Your task to perform on an android device: allow notifications from all sites in the chrome app Image 0: 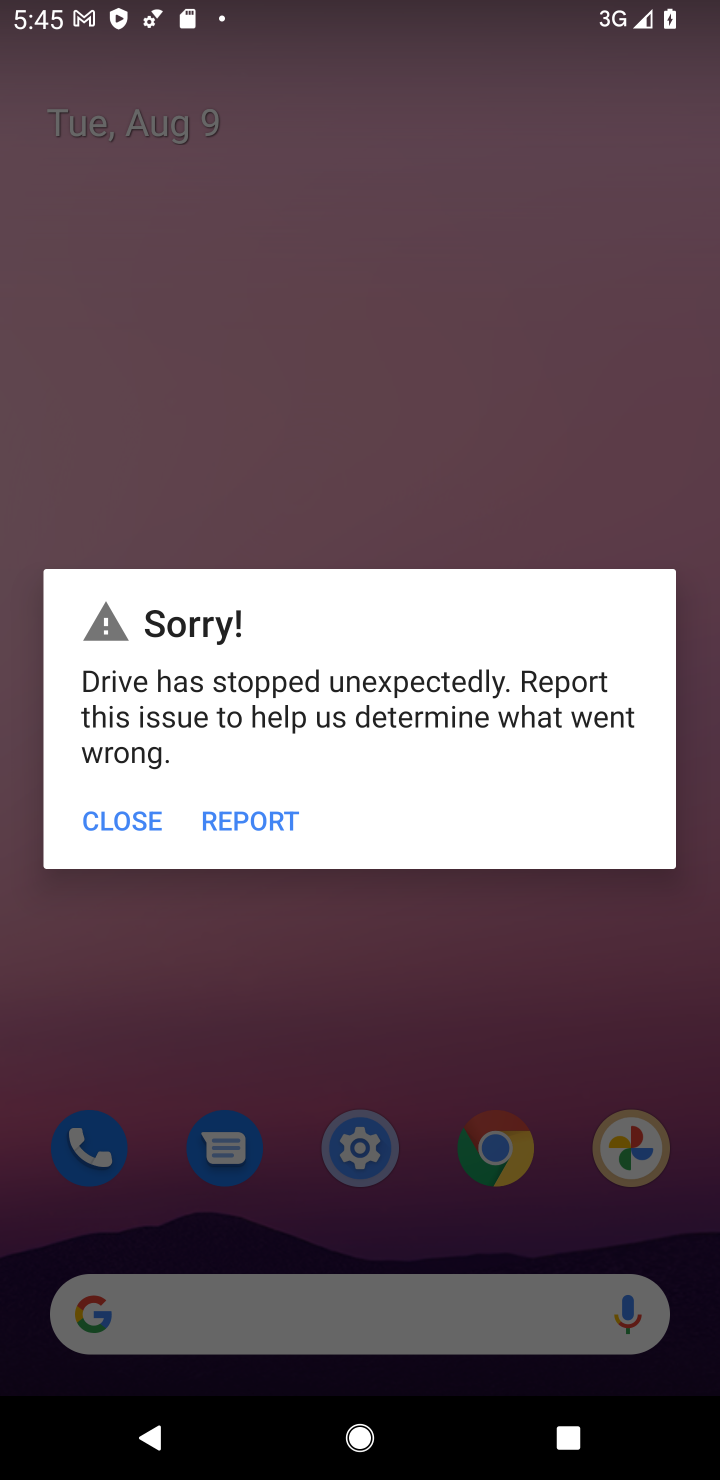
Step 0: click (99, 815)
Your task to perform on an android device: allow notifications from all sites in the chrome app Image 1: 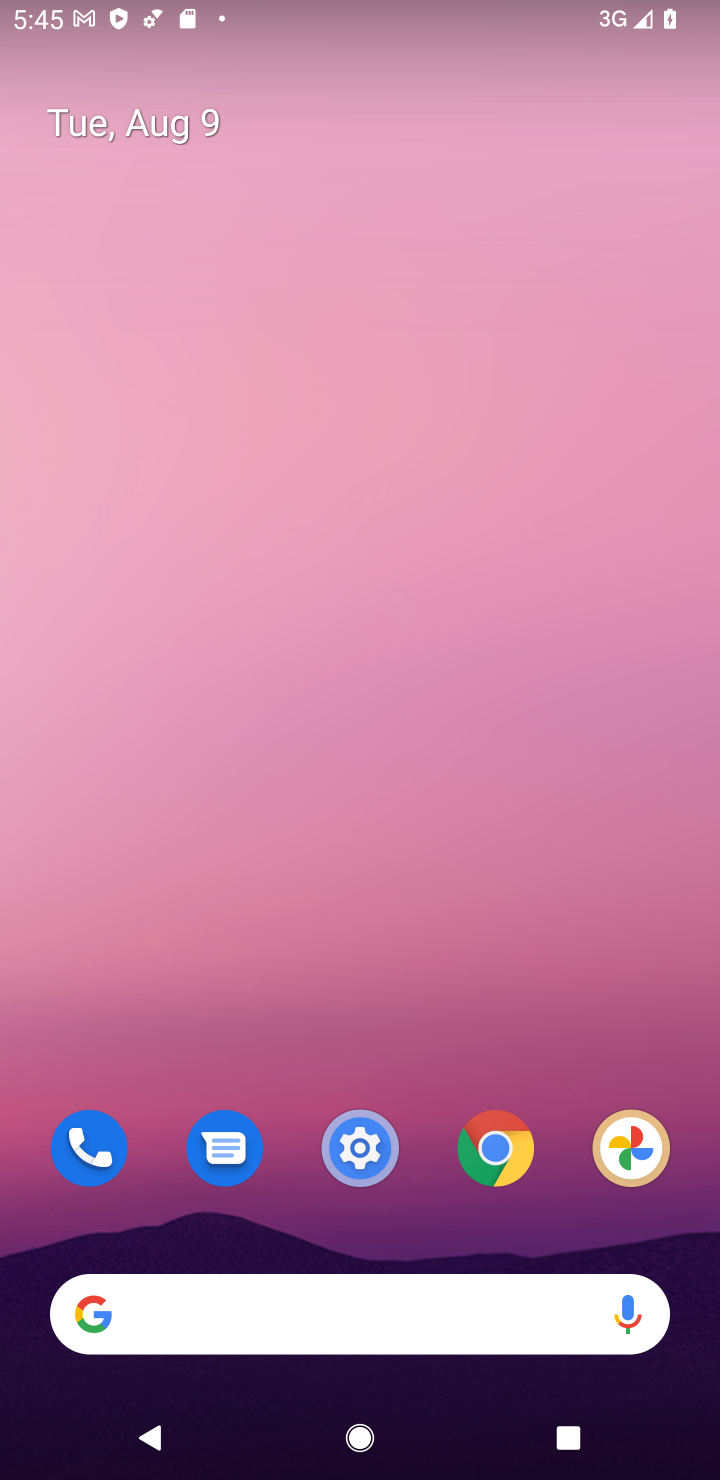
Step 1: click (502, 1138)
Your task to perform on an android device: allow notifications from all sites in the chrome app Image 2: 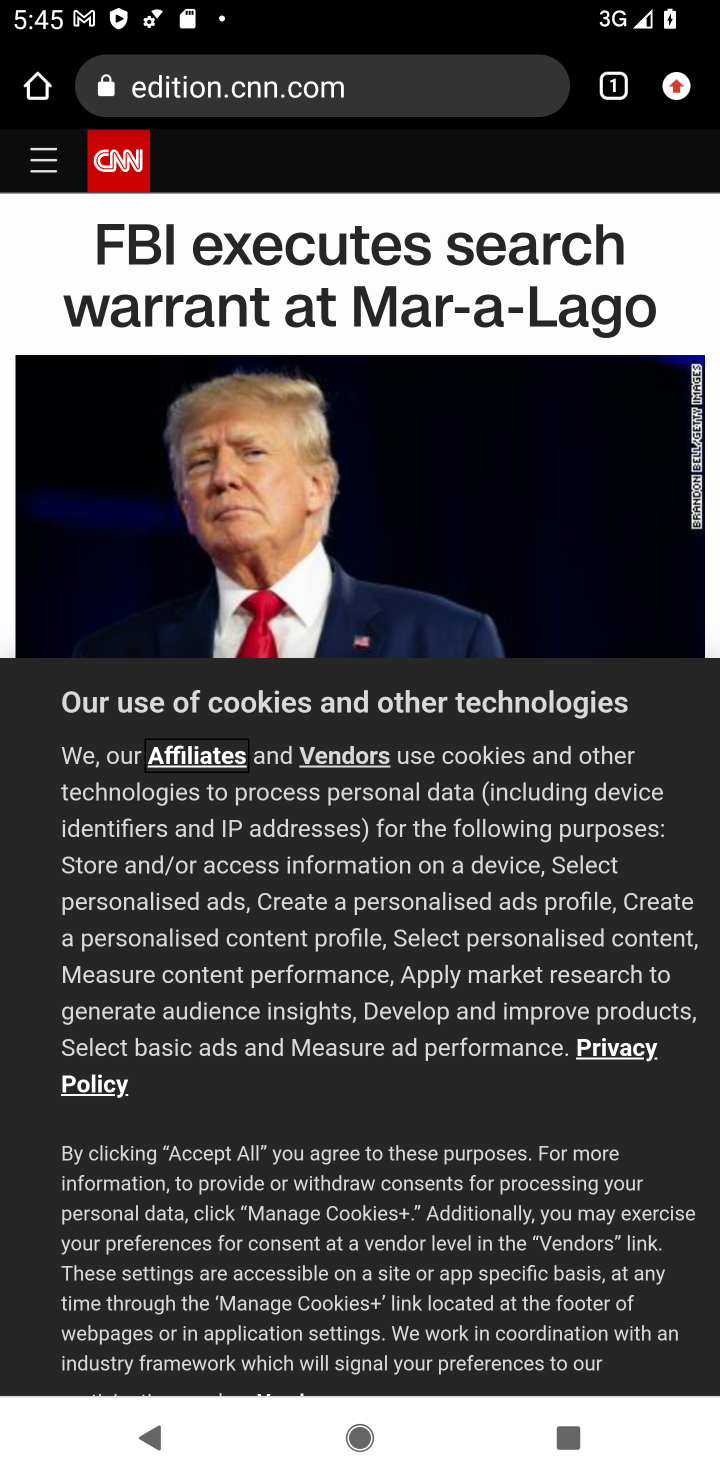
Step 2: click (665, 85)
Your task to perform on an android device: allow notifications from all sites in the chrome app Image 3: 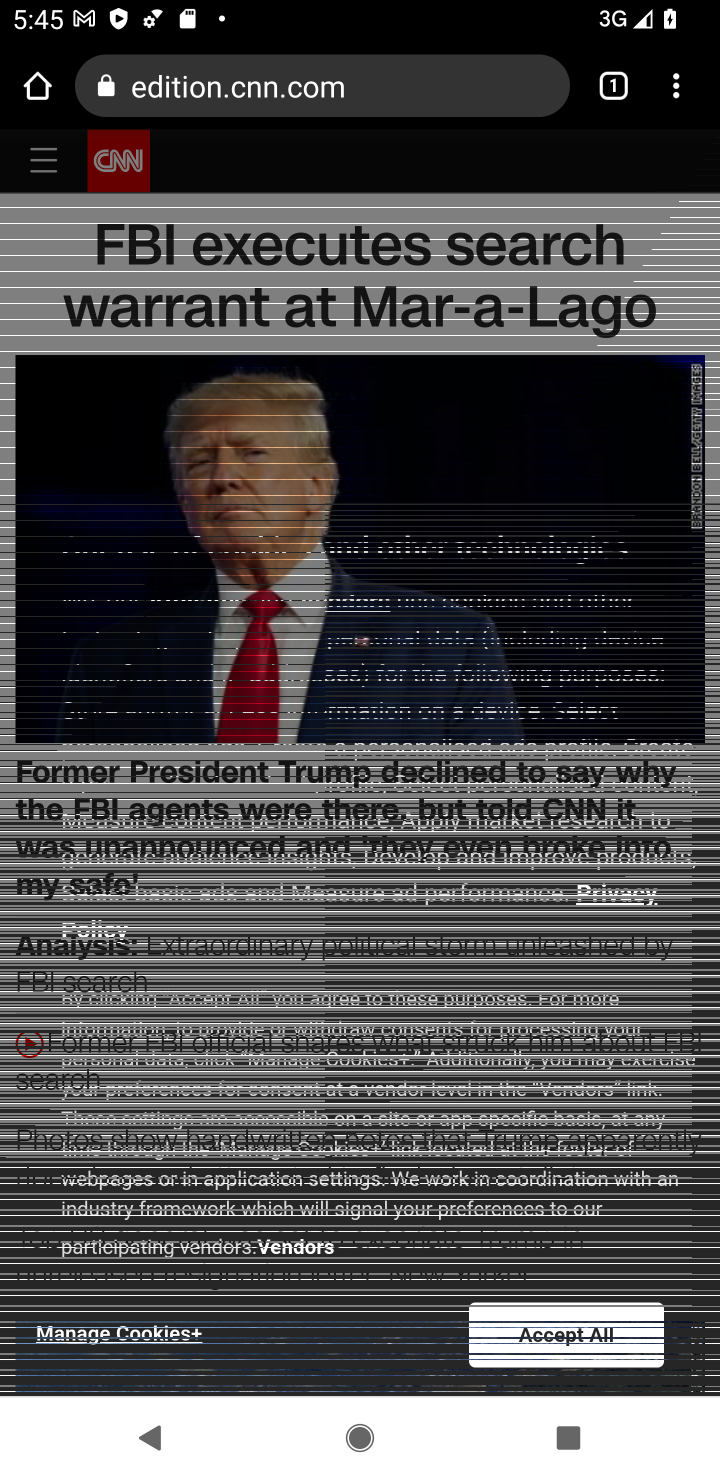
Step 3: click (678, 80)
Your task to perform on an android device: allow notifications from all sites in the chrome app Image 4: 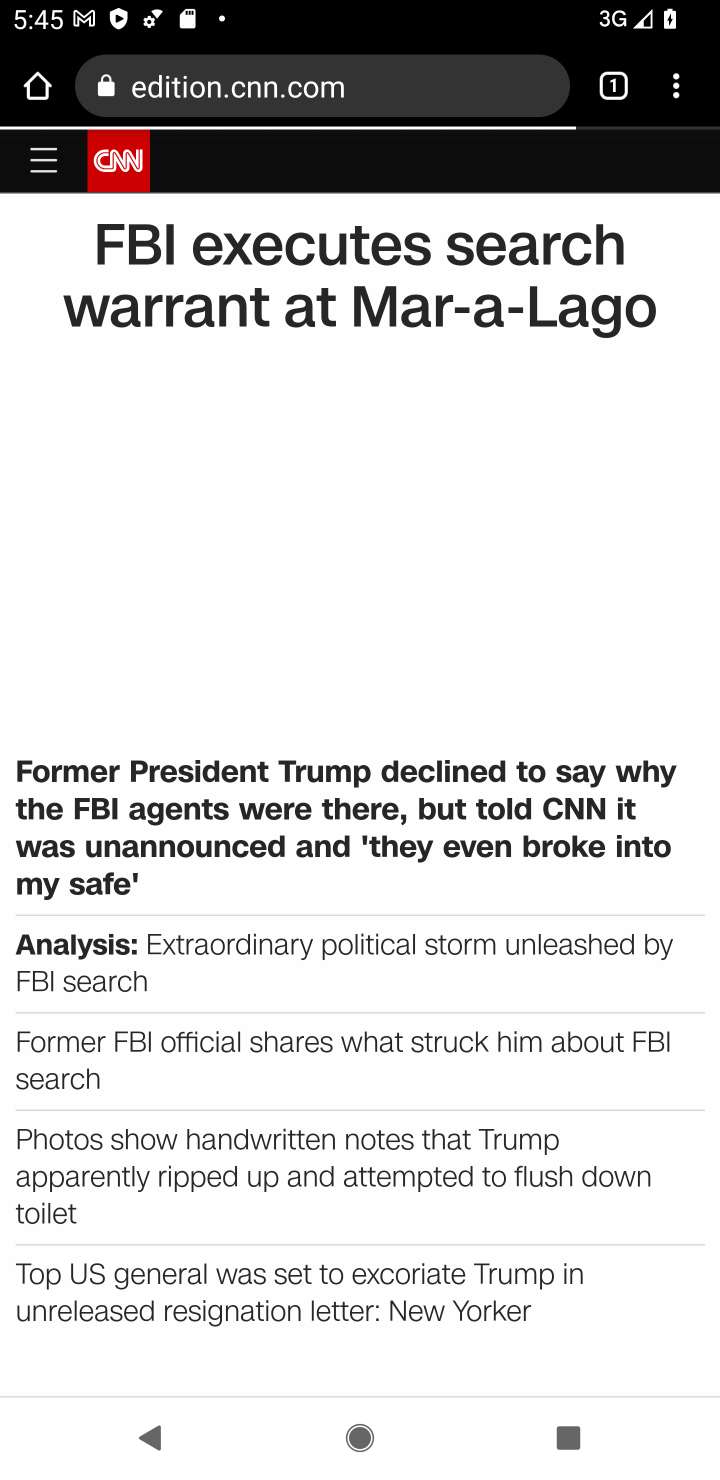
Step 4: click (646, 104)
Your task to perform on an android device: allow notifications from all sites in the chrome app Image 5: 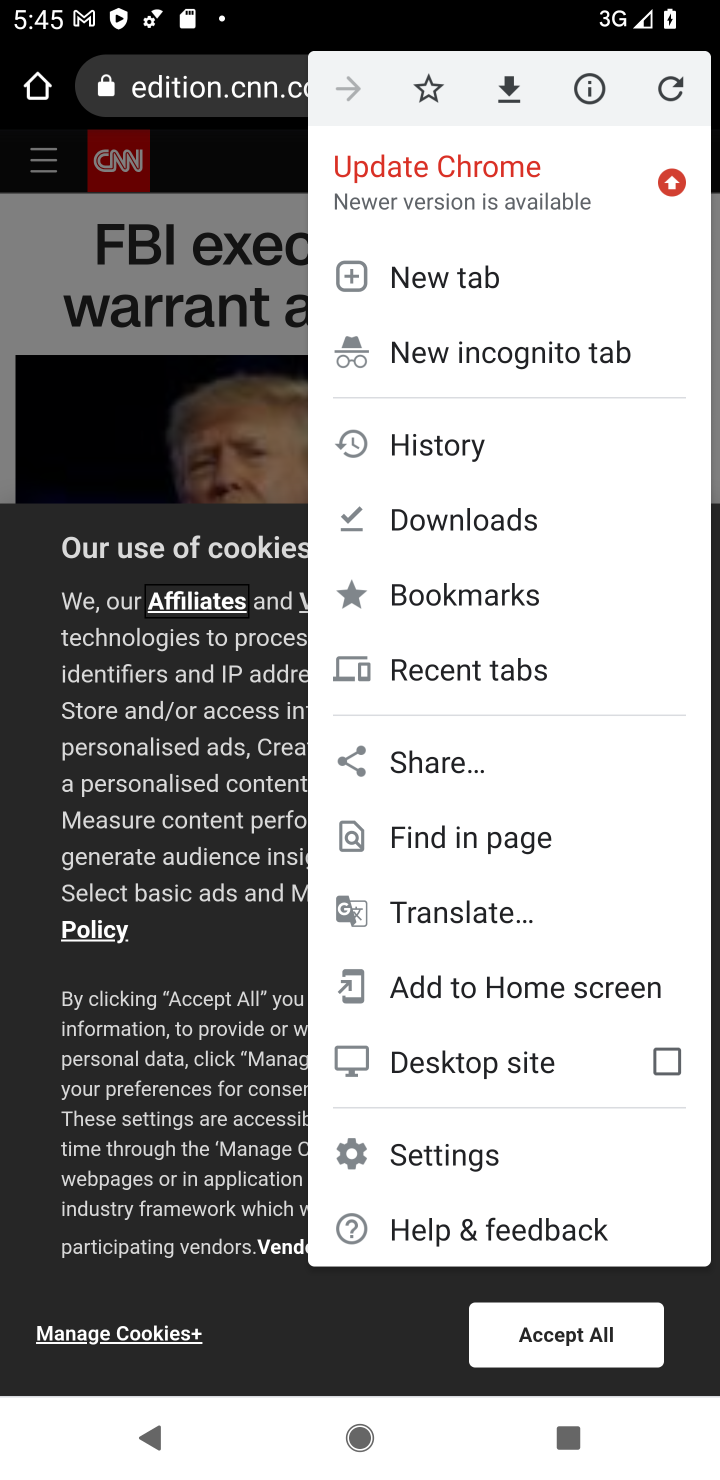
Step 5: click (461, 1159)
Your task to perform on an android device: allow notifications from all sites in the chrome app Image 6: 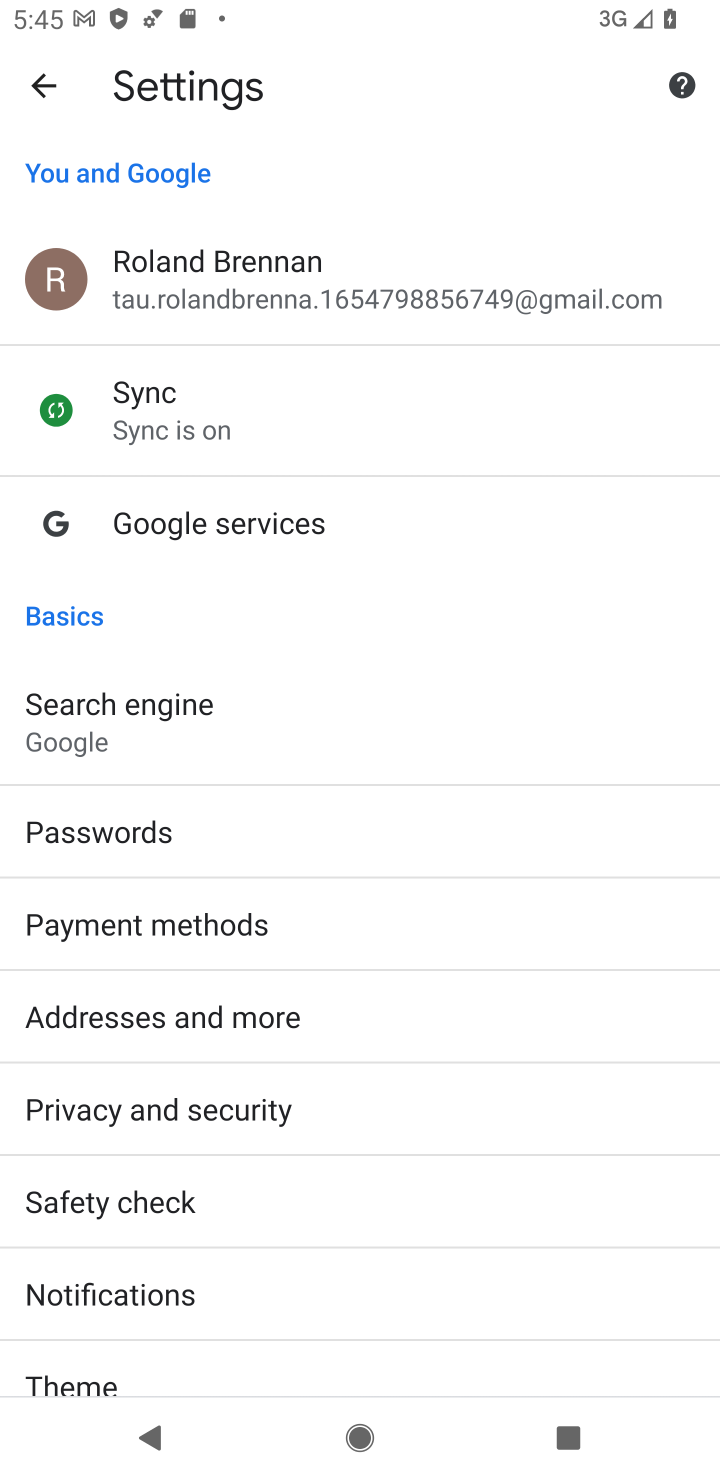
Step 6: click (186, 1278)
Your task to perform on an android device: allow notifications from all sites in the chrome app Image 7: 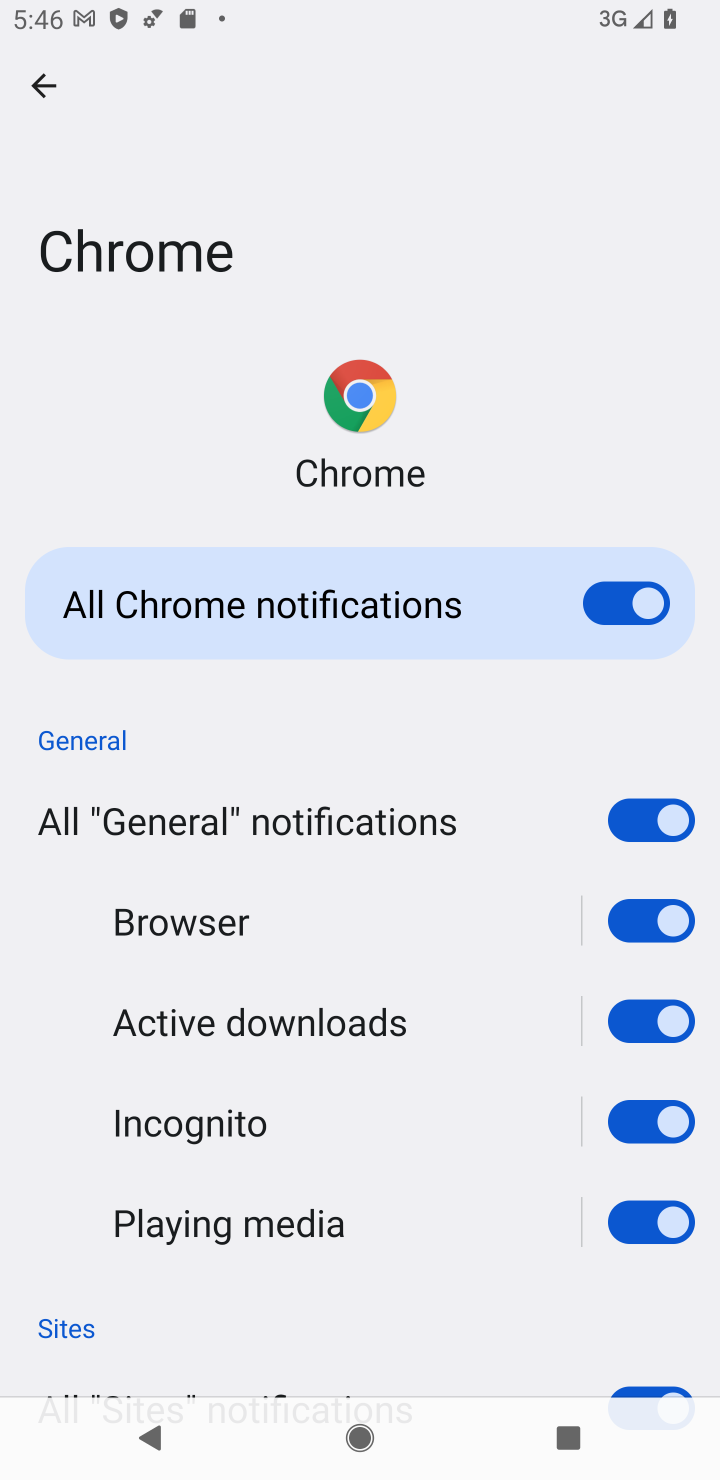
Step 7: task complete